Your task to perform on an android device: Show me productivity apps on the Play Store Image 0: 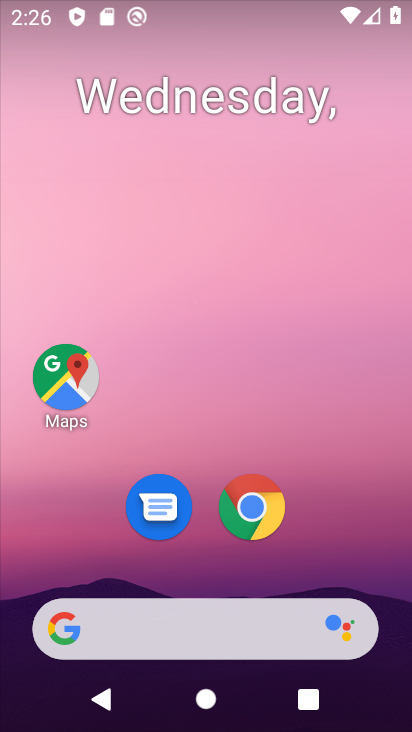
Step 0: drag from (348, 431) to (316, 99)
Your task to perform on an android device: Show me productivity apps on the Play Store Image 1: 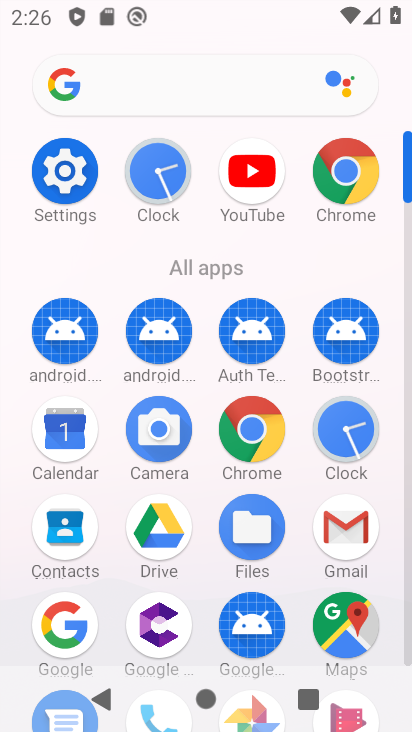
Step 1: drag from (219, 292) to (221, 90)
Your task to perform on an android device: Show me productivity apps on the Play Store Image 2: 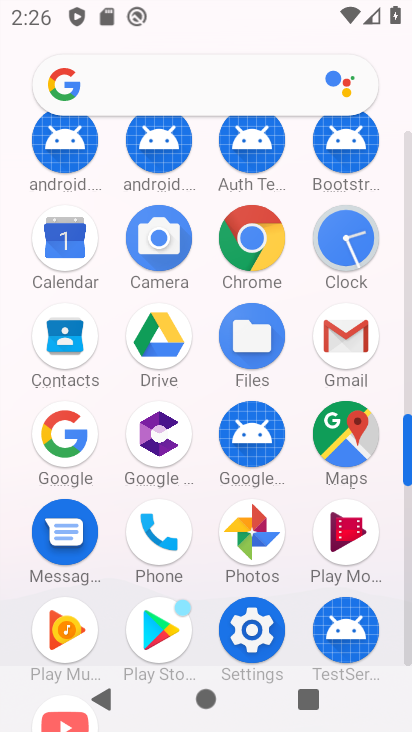
Step 2: click (143, 607)
Your task to perform on an android device: Show me productivity apps on the Play Store Image 3: 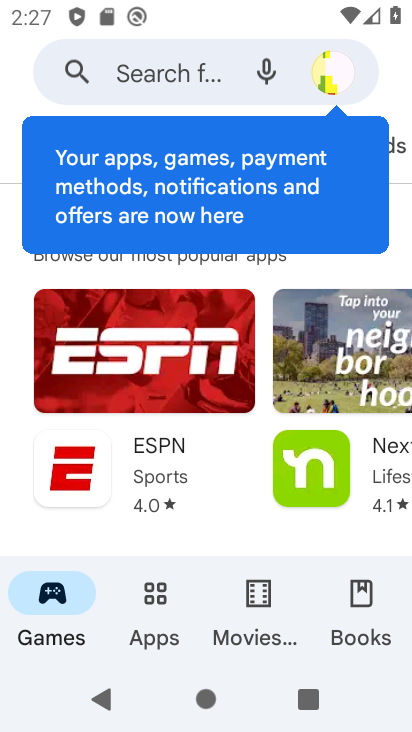
Step 3: click (165, 581)
Your task to perform on an android device: Show me productivity apps on the Play Store Image 4: 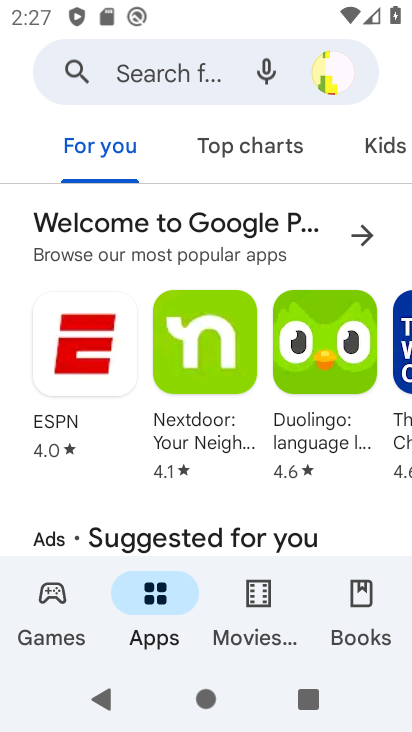
Step 4: drag from (386, 146) to (112, 122)
Your task to perform on an android device: Show me productivity apps on the Play Store Image 5: 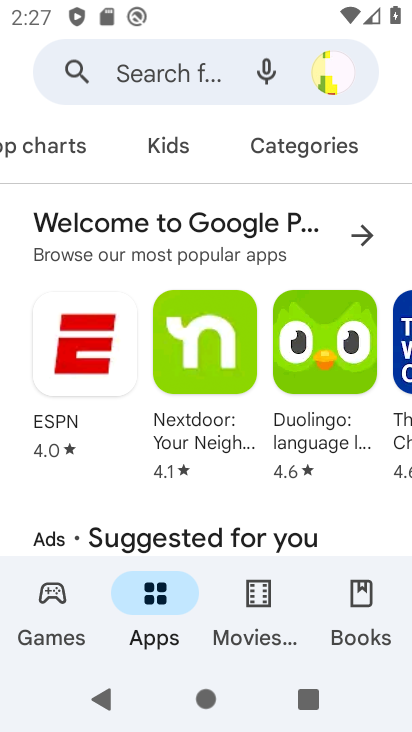
Step 5: click (285, 157)
Your task to perform on an android device: Show me productivity apps on the Play Store Image 6: 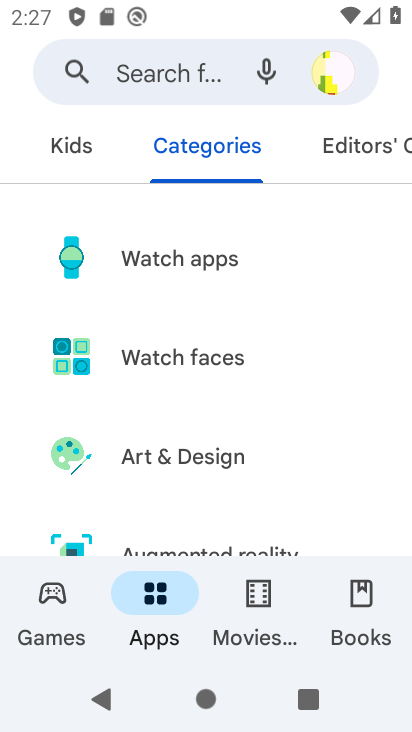
Step 6: drag from (191, 471) to (170, 126)
Your task to perform on an android device: Show me productivity apps on the Play Store Image 7: 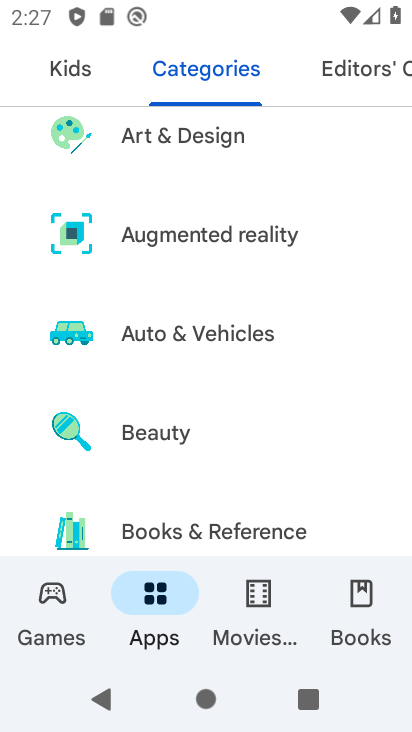
Step 7: drag from (208, 440) to (209, 0)
Your task to perform on an android device: Show me productivity apps on the Play Store Image 8: 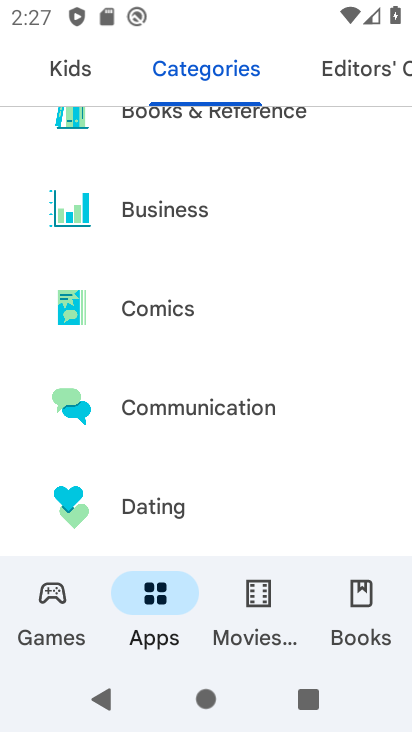
Step 8: drag from (164, 508) to (202, 0)
Your task to perform on an android device: Show me productivity apps on the Play Store Image 9: 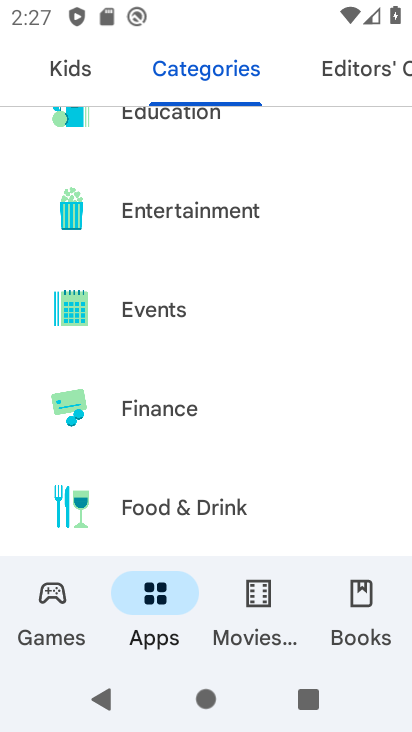
Step 9: drag from (203, 453) to (282, 25)
Your task to perform on an android device: Show me productivity apps on the Play Store Image 10: 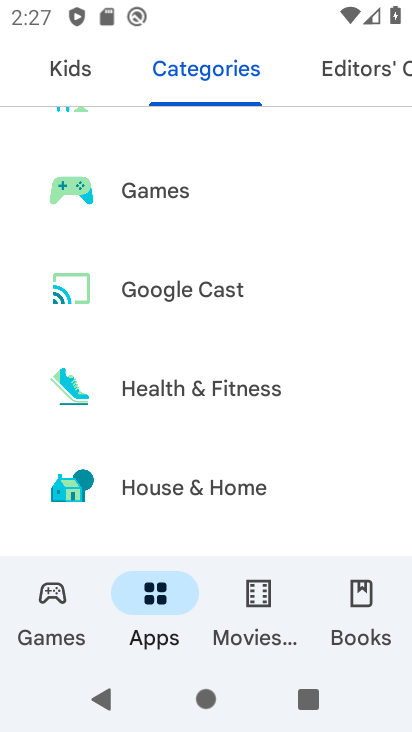
Step 10: drag from (159, 490) to (204, 128)
Your task to perform on an android device: Show me productivity apps on the Play Store Image 11: 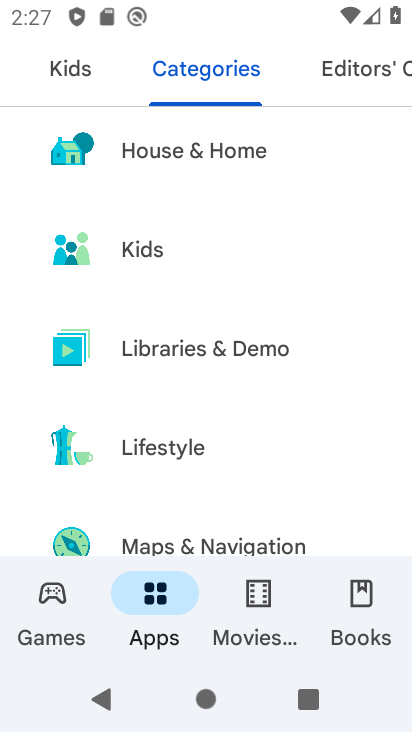
Step 11: drag from (163, 506) to (172, 202)
Your task to perform on an android device: Show me productivity apps on the Play Store Image 12: 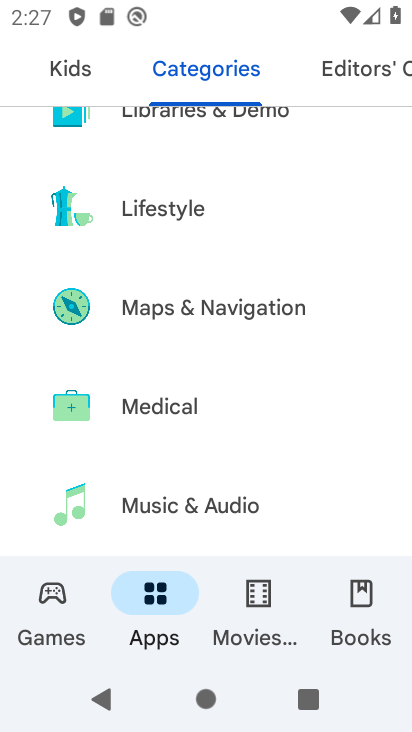
Step 12: drag from (183, 479) to (256, 97)
Your task to perform on an android device: Show me productivity apps on the Play Store Image 13: 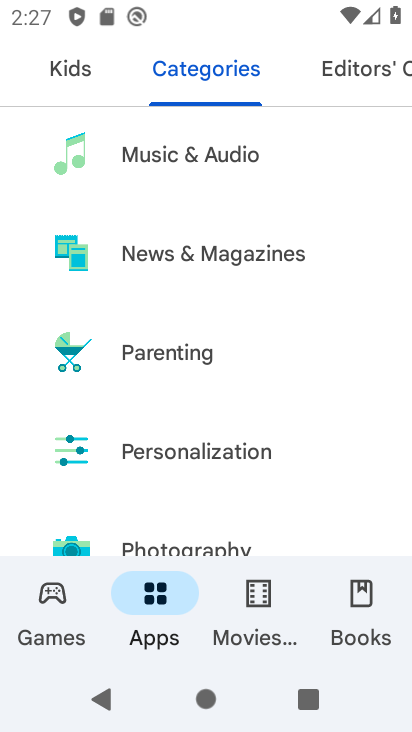
Step 13: drag from (144, 547) to (255, 187)
Your task to perform on an android device: Show me productivity apps on the Play Store Image 14: 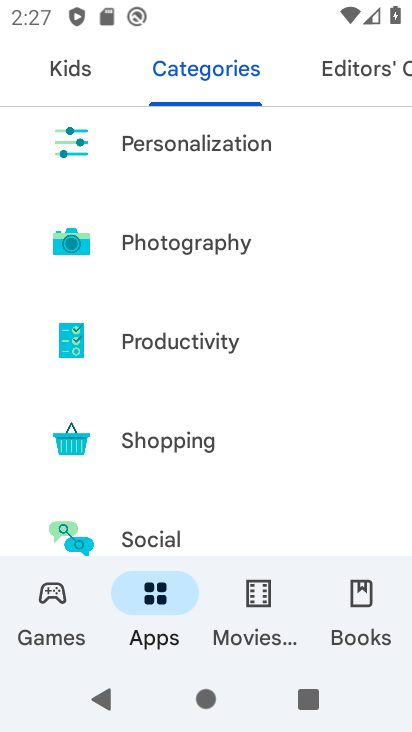
Step 14: click (224, 337)
Your task to perform on an android device: Show me productivity apps on the Play Store Image 15: 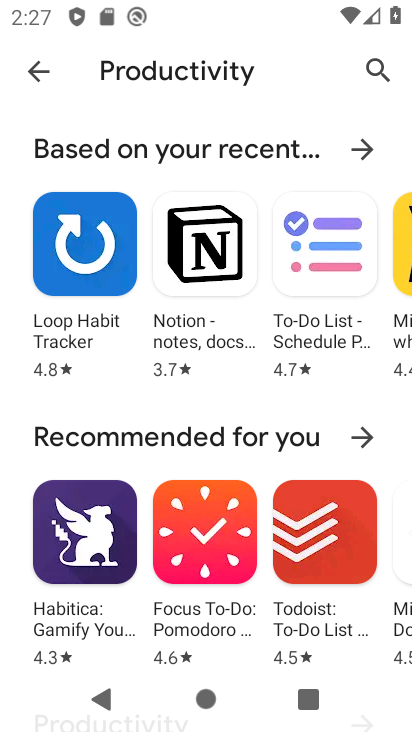
Step 15: task complete